Your task to perform on an android device: Open accessibility settings Image 0: 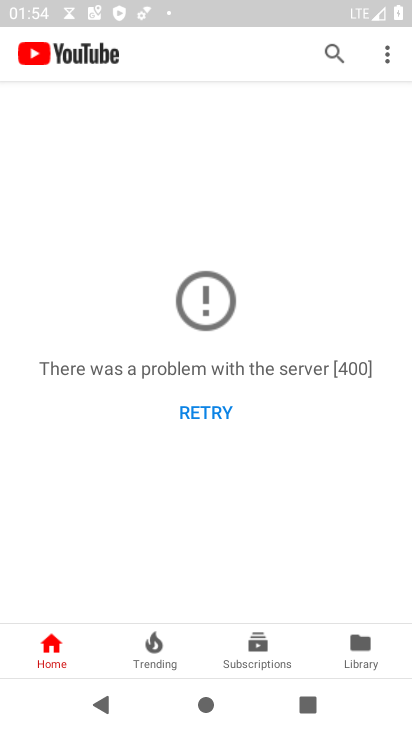
Step 0: press back button
Your task to perform on an android device: Open accessibility settings Image 1: 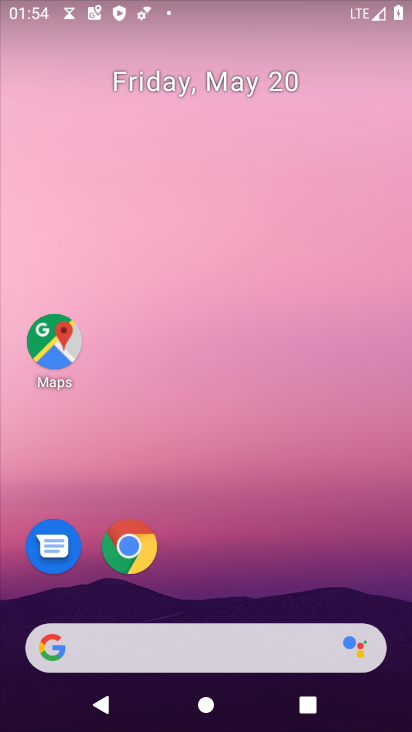
Step 1: drag from (245, 617) to (243, 16)
Your task to perform on an android device: Open accessibility settings Image 2: 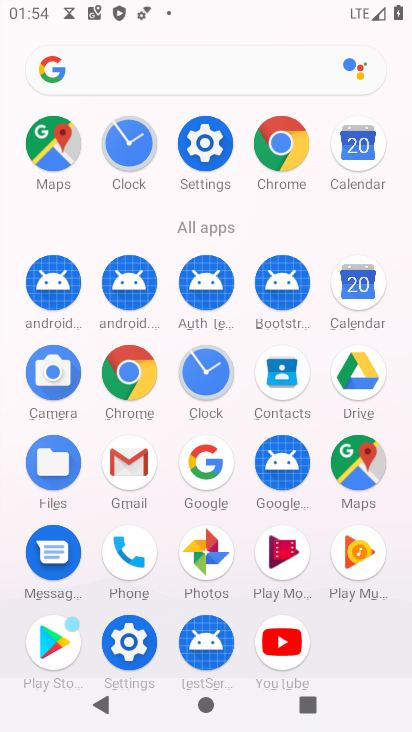
Step 2: click (137, 612)
Your task to perform on an android device: Open accessibility settings Image 3: 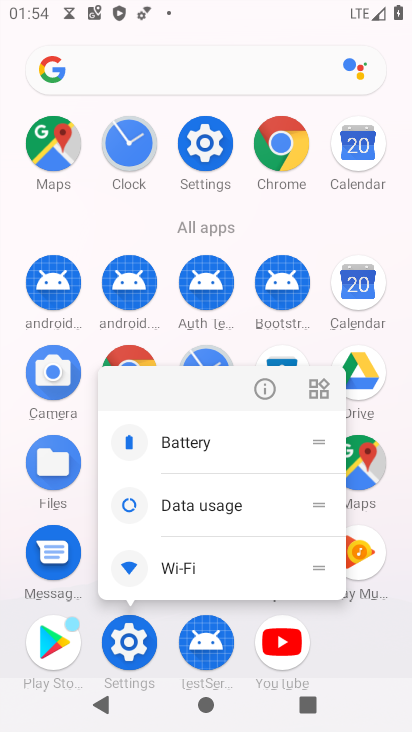
Step 3: click (116, 650)
Your task to perform on an android device: Open accessibility settings Image 4: 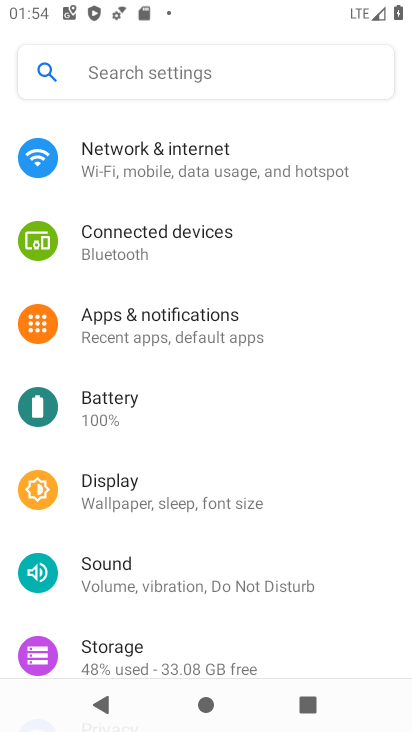
Step 4: drag from (136, 603) to (123, 98)
Your task to perform on an android device: Open accessibility settings Image 5: 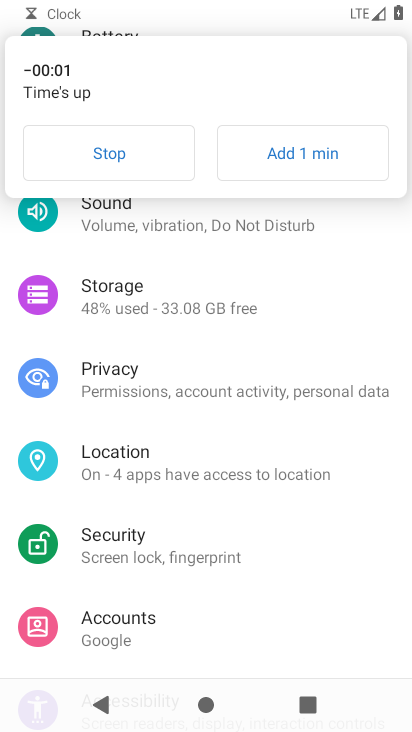
Step 5: drag from (164, 597) to (155, 450)
Your task to perform on an android device: Open accessibility settings Image 6: 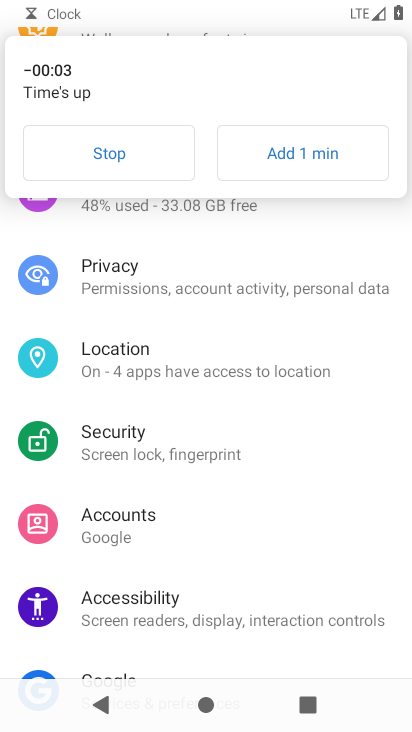
Step 6: click (148, 583)
Your task to perform on an android device: Open accessibility settings Image 7: 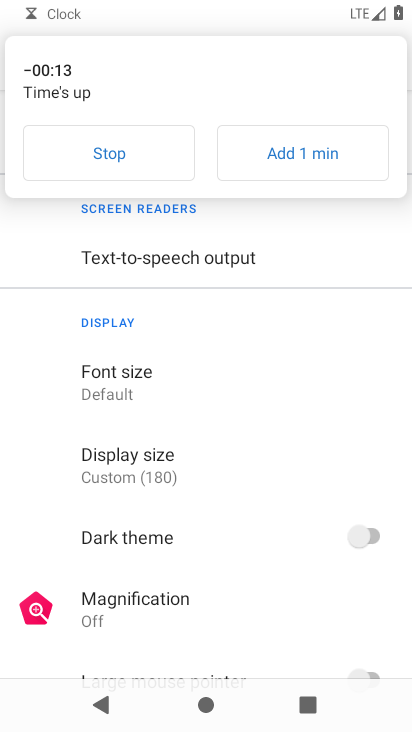
Step 7: drag from (186, 565) to (152, 358)
Your task to perform on an android device: Open accessibility settings Image 8: 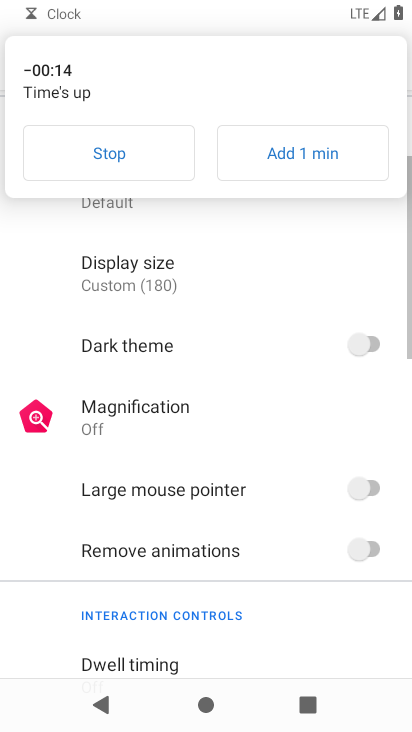
Step 8: click (121, 162)
Your task to perform on an android device: Open accessibility settings Image 9: 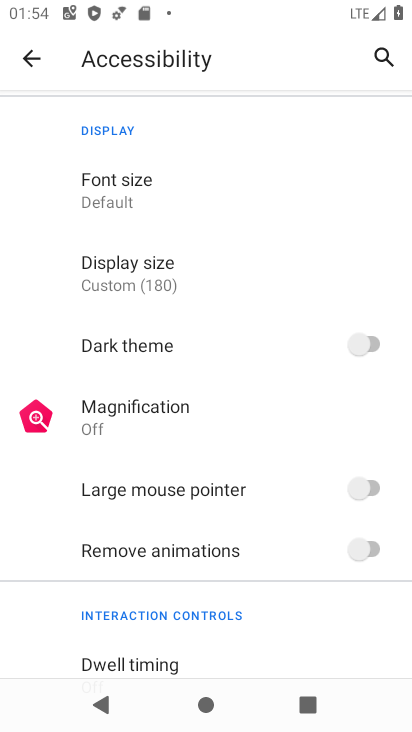
Step 9: task complete